Your task to perform on an android device: Show me popular games on the Play Store Image 0: 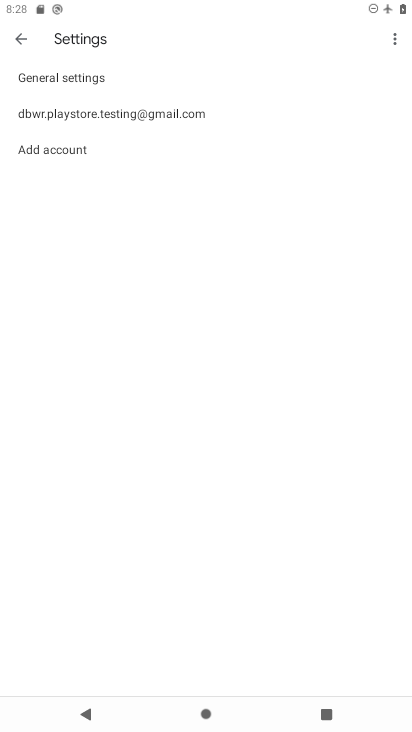
Step 0: press home button
Your task to perform on an android device: Show me popular games on the Play Store Image 1: 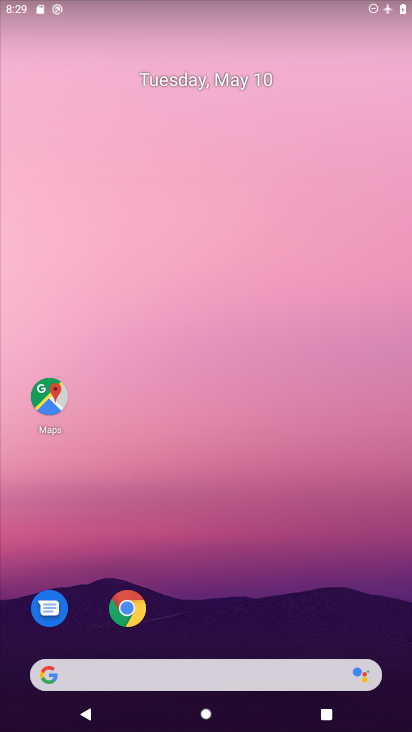
Step 1: click (220, 311)
Your task to perform on an android device: Show me popular games on the Play Store Image 2: 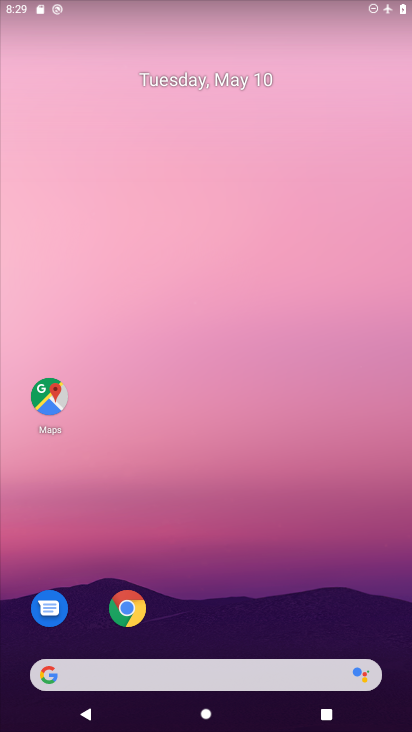
Step 2: drag from (231, 439) to (244, 269)
Your task to perform on an android device: Show me popular games on the Play Store Image 3: 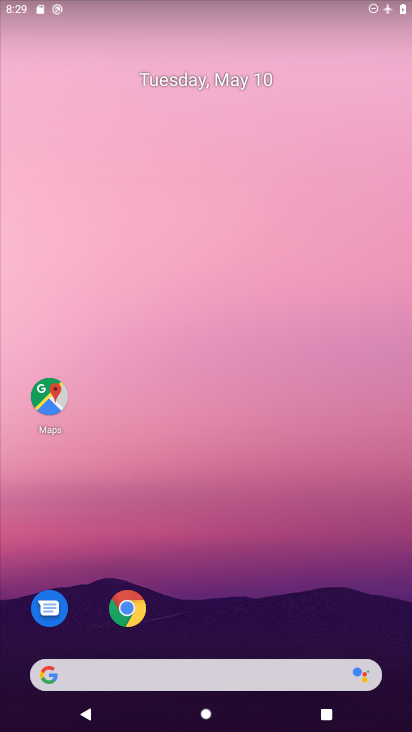
Step 3: drag from (183, 631) to (259, 181)
Your task to perform on an android device: Show me popular games on the Play Store Image 4: 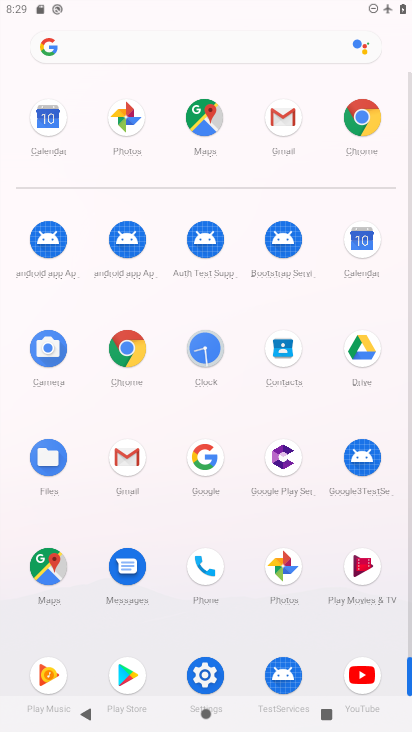
Step 4: click (119, 671)
Your task to perform on an android device: Show me popular games on the Play Store Image 5: 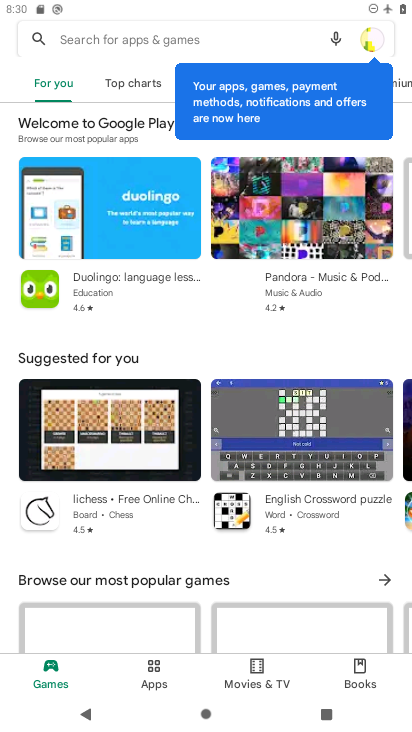
Step 5: click (43, 667)
Your task to perform on an android device: Show me popular games on the Play Store Image 6: 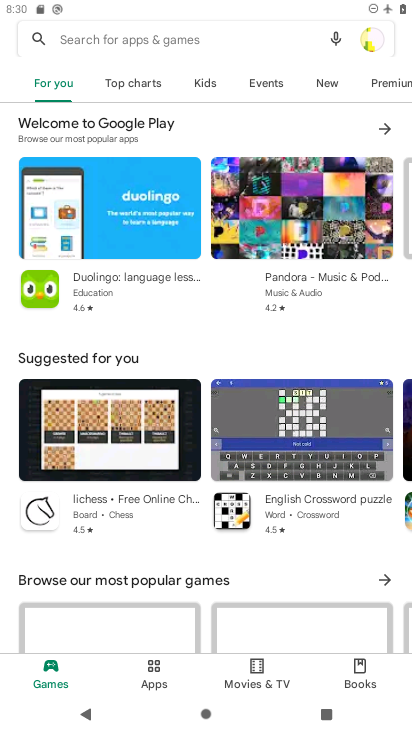
Step 6: click (47, 675)
Your task to perform on an android device: Show me popular games on the Play Store Image 7: 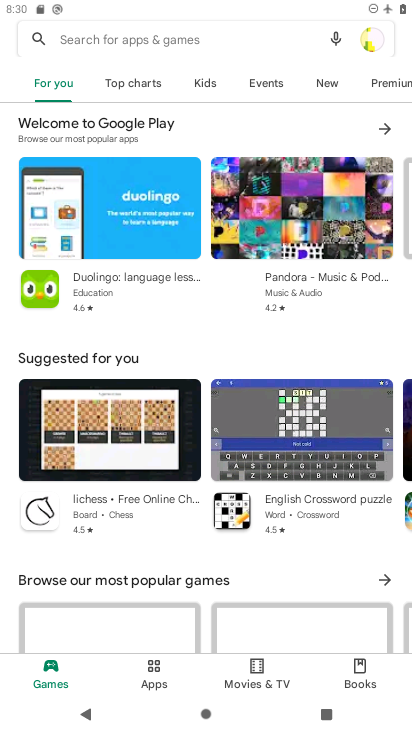
Step 7: task complete